Your task to perform on an android device: What's on my calendar tomorrow? Image 0: 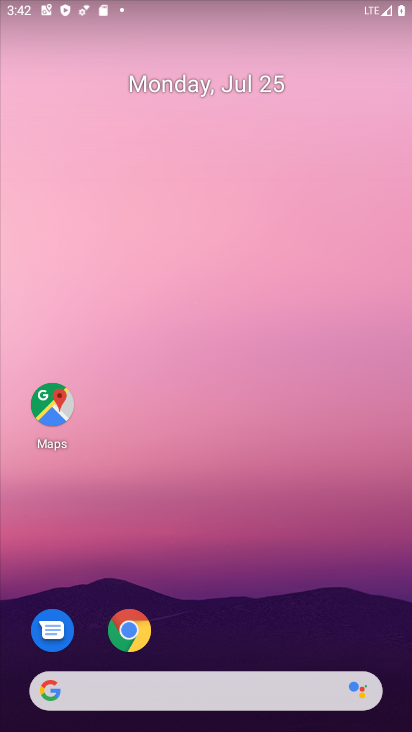
Step 0: drag from (214, 595) to (253, 0)
Your task to perform on an android device: What's on my calendar tomorrow? Image 1: 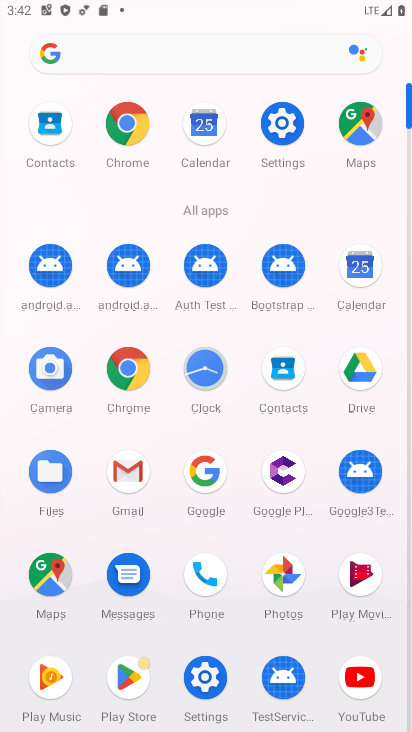
Step 1: click (355, 263)
Your task to perform on an android device: What's on my calendar tomorrow? Image 2: 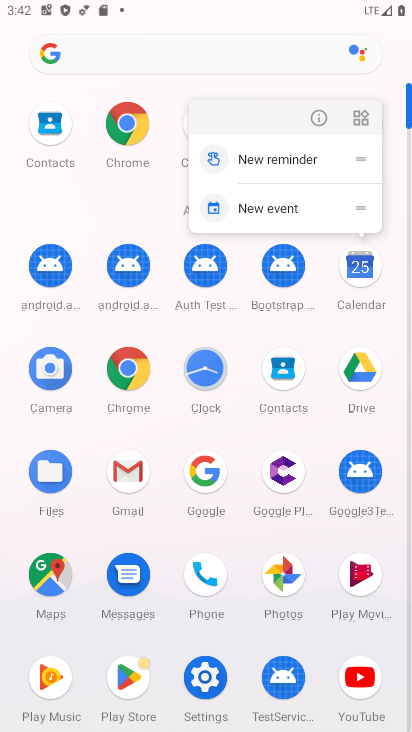
Step 2: click (351, 279)
Your task to perform on an android device: What's on my calendar tomorrow? Image 3: 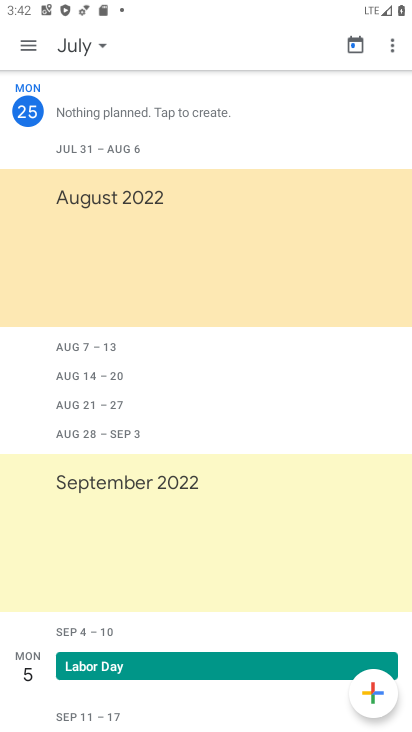
Step 3: click (29, 43)
Your task to perform on an android device: What's on my calendar tomorrow? Image 4: 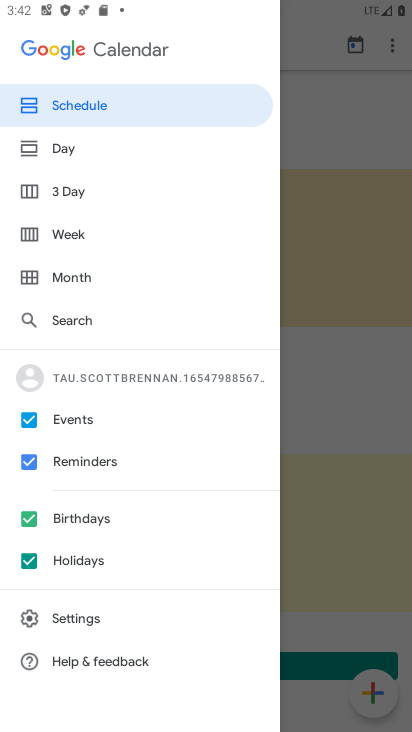
Step 4: click (75, 192)
Your task to perform on an android device: What's on my calendar tomorrow? Image 5: 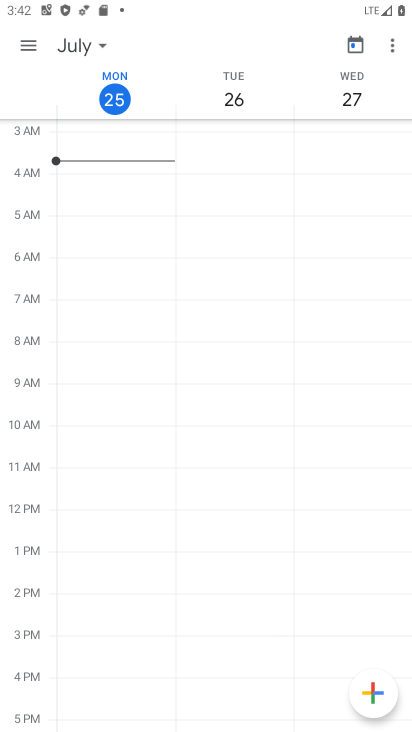
Step 5: task complete